Your task to perform on an android device: When is my next meeting? Image 0: 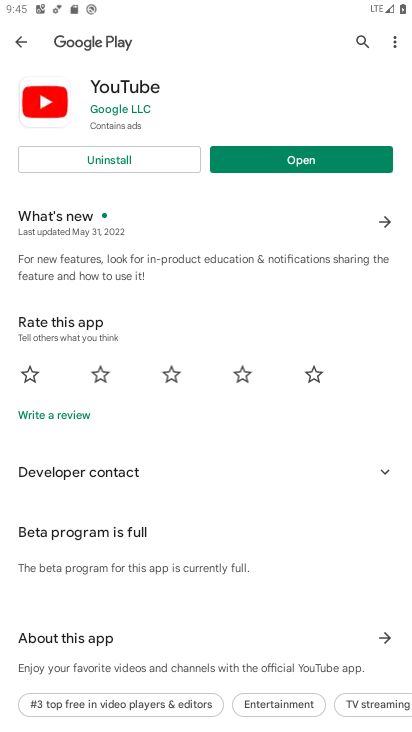
Step 0: press home button
Your task to perform on an android device: When is my next meeting? Image 1: 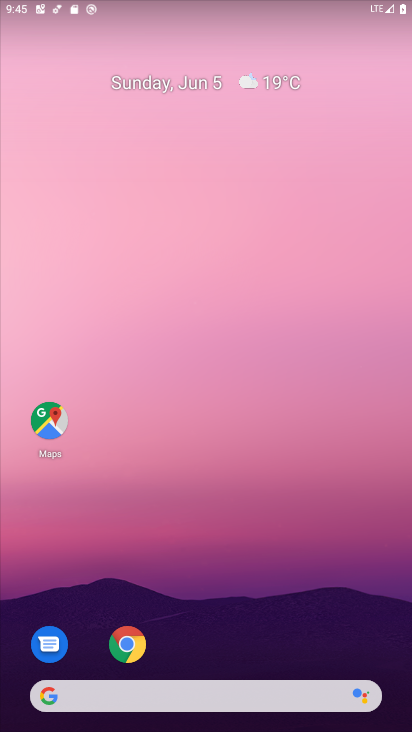
Step 1: drag from (315, 603) to (227, 36)
Your task to perform on an android device: When is my next meeting? Image 2: 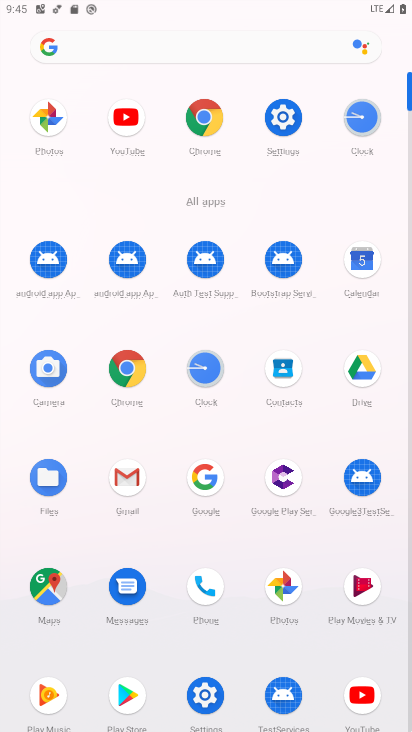
Step 2: click (367, 261)
Your task to perform on an android device: When is my next meeting? Image 3: 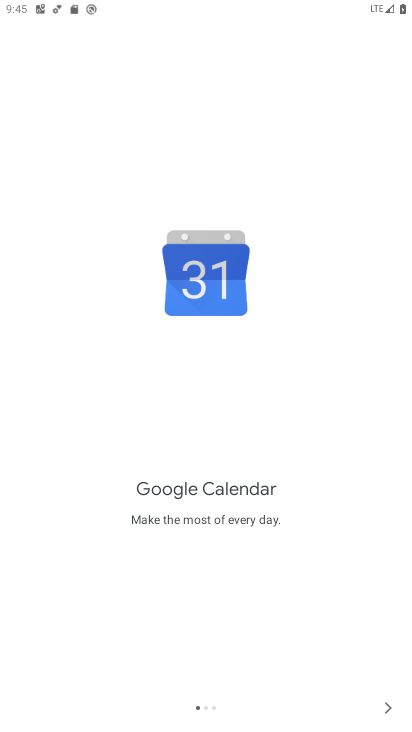
Step 3: click (388, 702)
Your task to perform on an android device: When is my next meeting? Image 4: 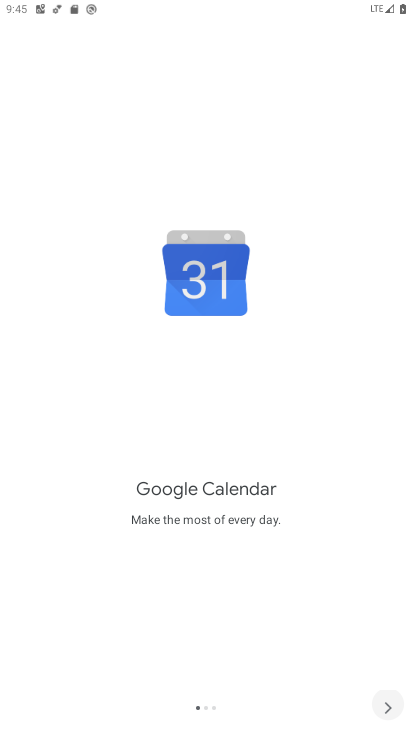
Step 4: click (388, 702)
Your task to perform on an android device: When is my next meeting? Image 5: 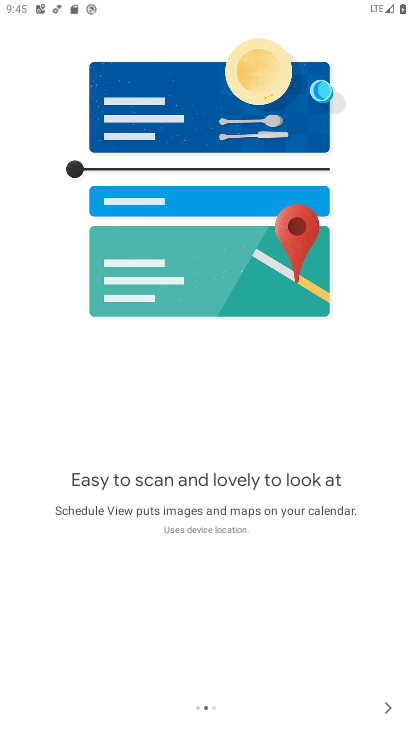
Step 5: click (388, 702)
Your task to perform on an android device: When is my next meeting? Image 6: 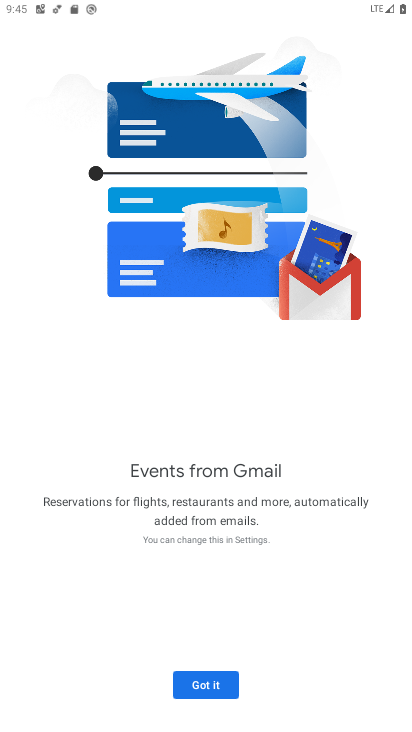
Step 6: click (217, 683)
Your task to perform on an android device: When is my next meeting? Image 7: 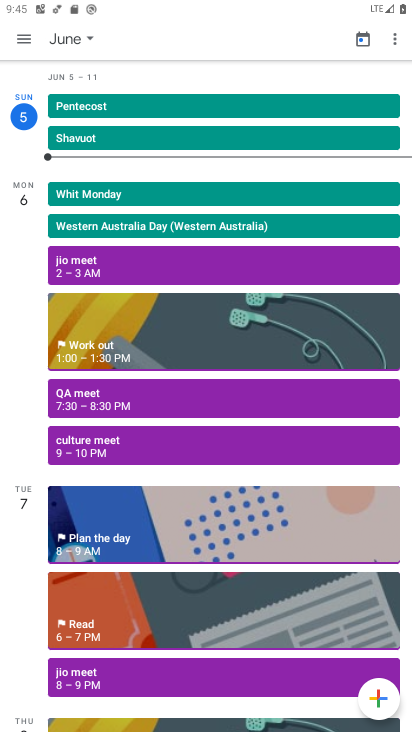
Step 7: task complete